Your task to perform on an android device: see tabs open on other devices in the chrome app Image 0: 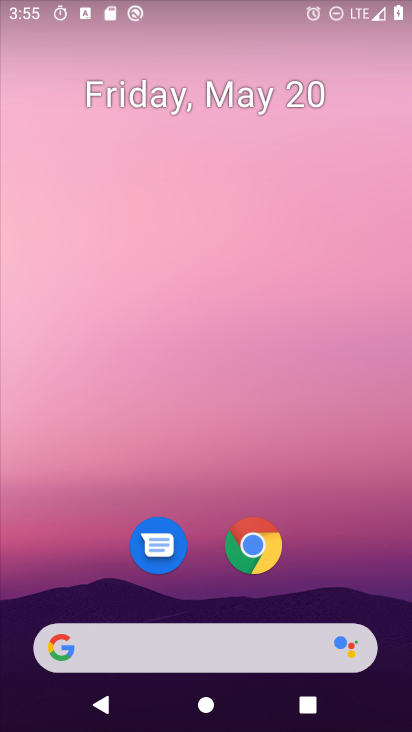
Step 0: drag from (171, 504) to (148, 14)
Your task to perform on an android device: see tabs open on other devices in the chrome app Image 1: 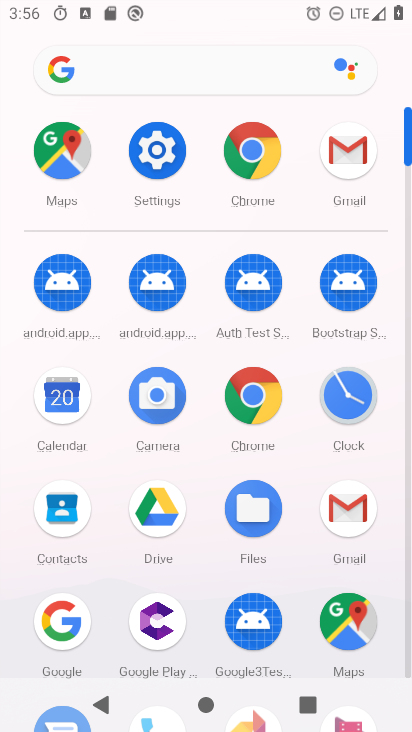
Step 1: click (255, 402)
Your task to perform on an android device: see tabs open on other devices in the chrome app Image 2: 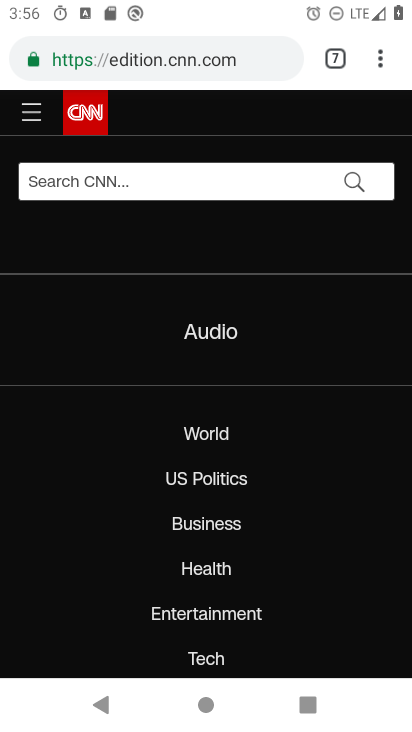
Step 2: task complete